Your task to perform on an android device: Open calendar and show me the third week of next month Image 0: 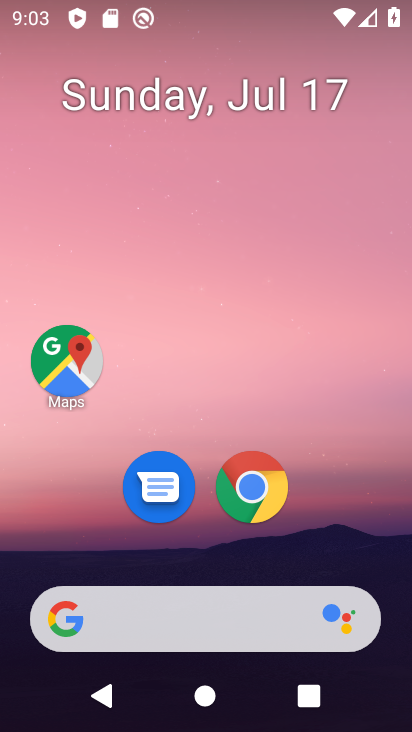
Step 0: drag from (331, 541) to (349, 103)
Your task to perform on an android device: Open calendar and show me the third week of next month Image 1: 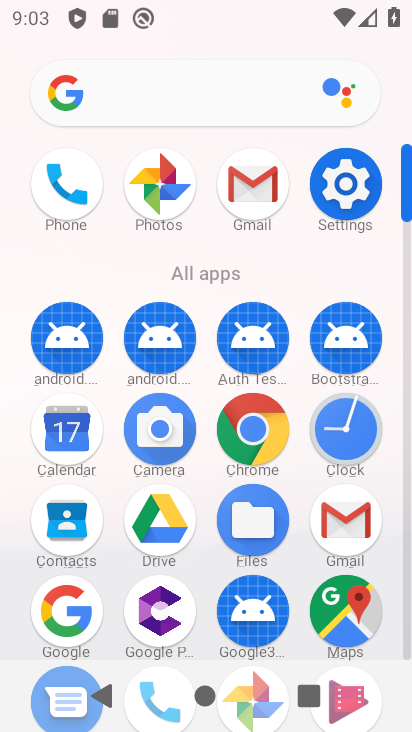
Step 1: click (65, 430)
Your task to perform on an android device: Open calendar and show me the third week of next month Image 2: 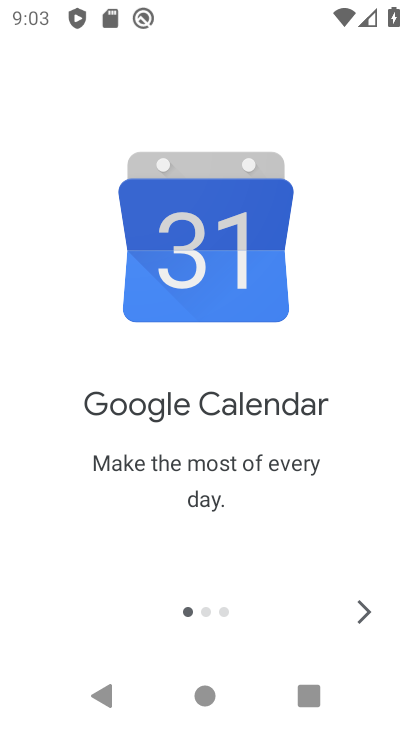
Step 2: click (361, 611)
Your task to perform on an android device: Open calendar and show me the third week of next month Image 3: 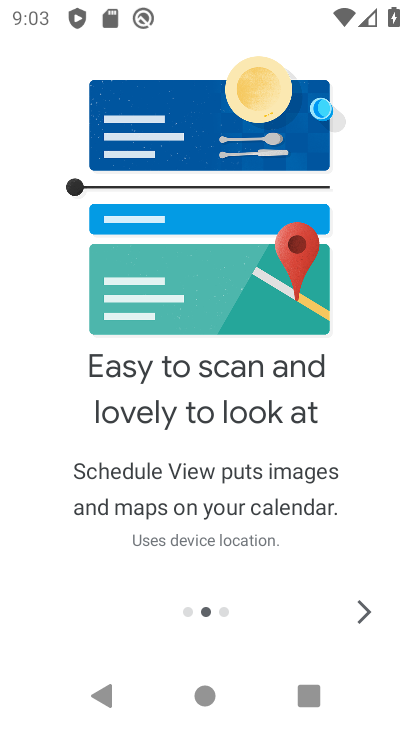
Step 3: click (361, 611)
Your task to perform on an android device: Open calendar and show me the third week of next month Image 4: 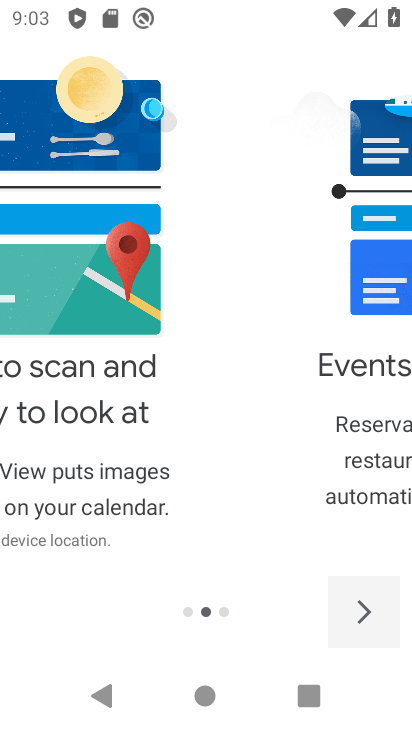
Step 4: click (361, 611)
Your task to perform on an android device: Open calendar and show me the third week of next month Image 5: 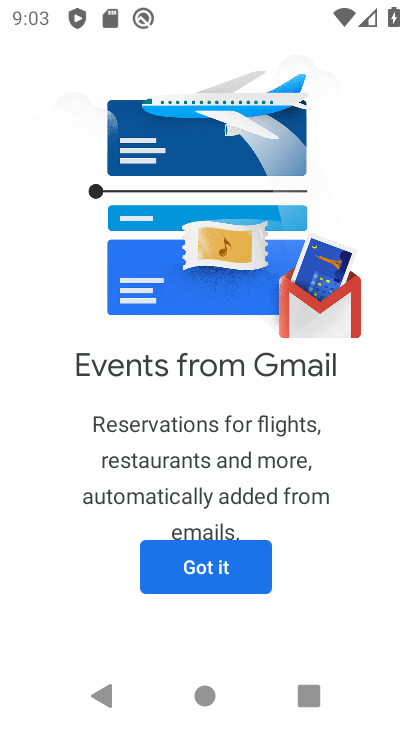
Step 5: click (199, 564)
Your task to perform on an android device: Open calendar and show me the third week of next month Image 6: 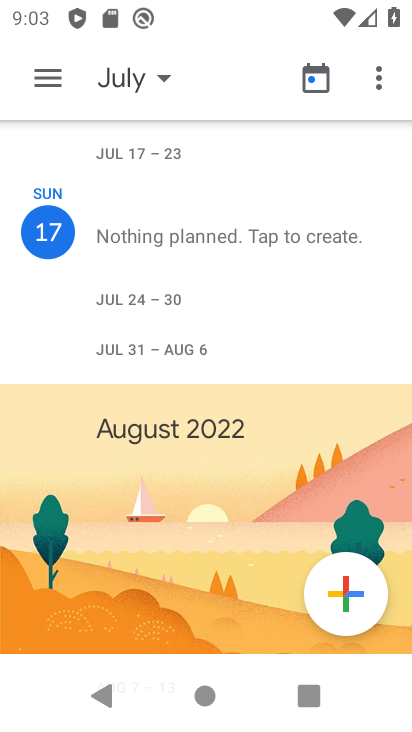
Step 6: click (56, 86)
Your task to perform on an android device: Open calendar and show me the third week of next month Image 7: 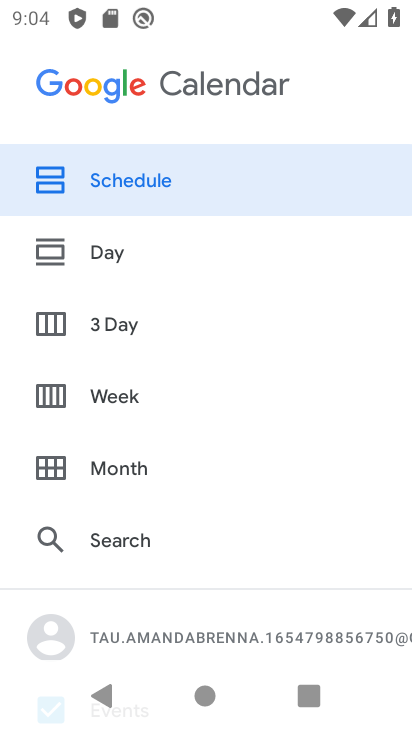
Step 7: drag from (118, 181) to (141, 476)
Your task to perform on an android device: Open calendar and show me the third week of next month Image 8: 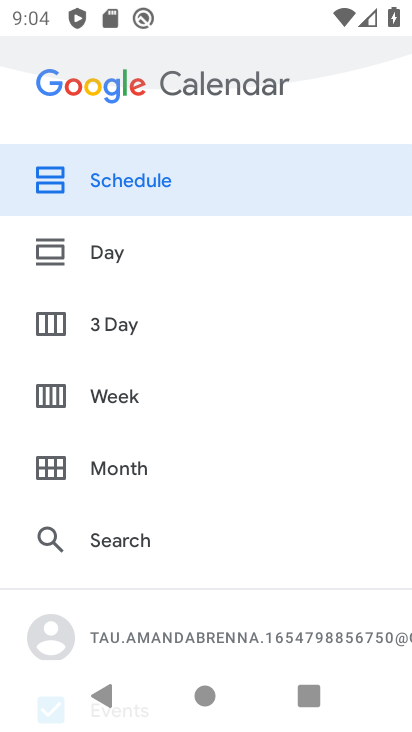
Step 8: click (141, 469)
Your task to perform on an android device: Open calendar and show me the third week of next month Image 9: 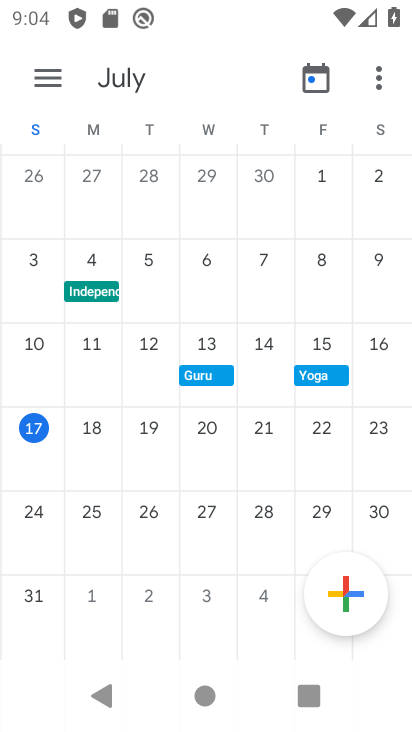
Step 9: task complete